Your task to perform on an android device: clear history in the chrome app Image 0: 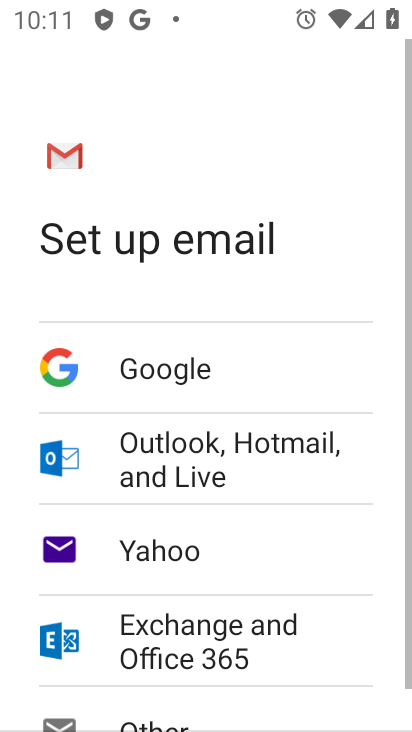
Step 0: press home button
Your task to perform on an android device: clear history in the chrome app Image 1: 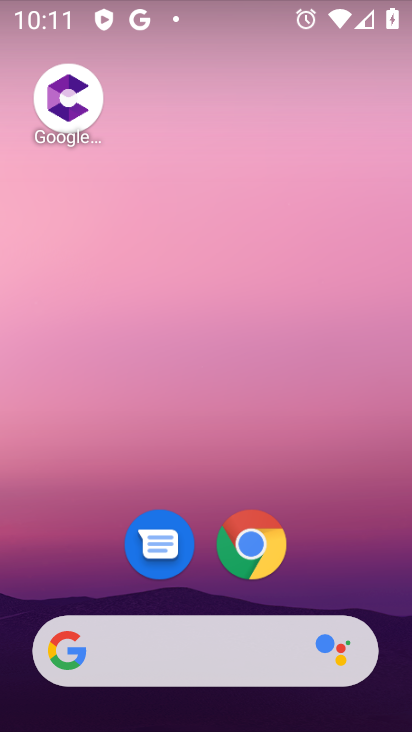
Step 1: click (247, 561)
Your task to perform on an android device: clear history in the chrome app Image 2: 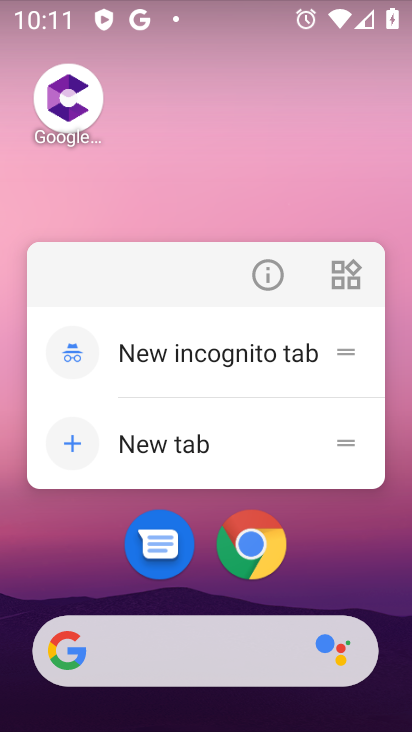
Step 2: click (245, 560)
Your task to perform on an android device: clear history in the chrome app Image 3: 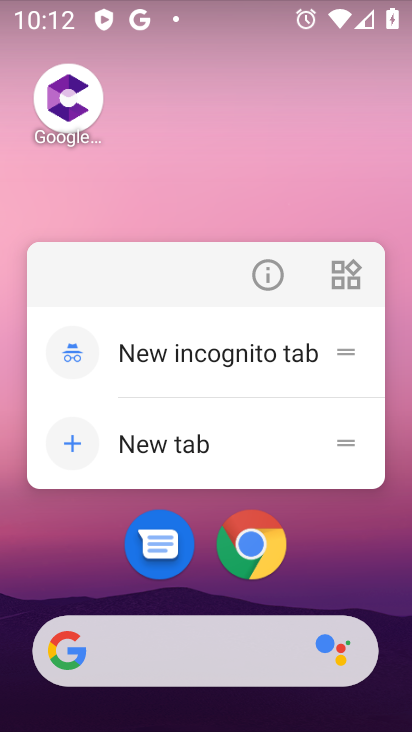
Step 3: click (242, 560)
Your task to perform on an android device: clear history in the chrome app Image 4: 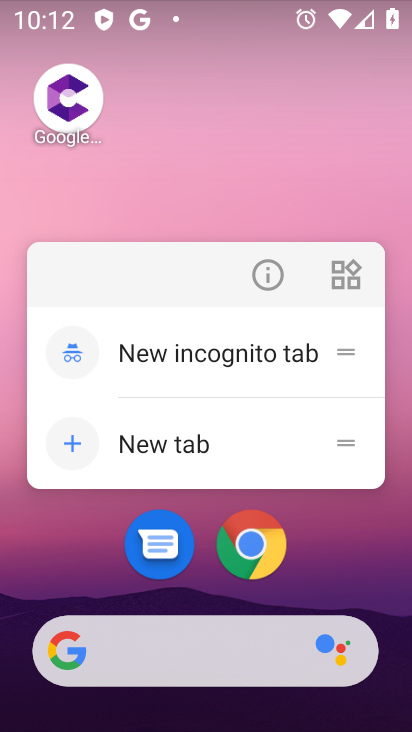
Step 4: click (248, 555)
Your task to perform on an android device: clear history in the chrome app Image 5: 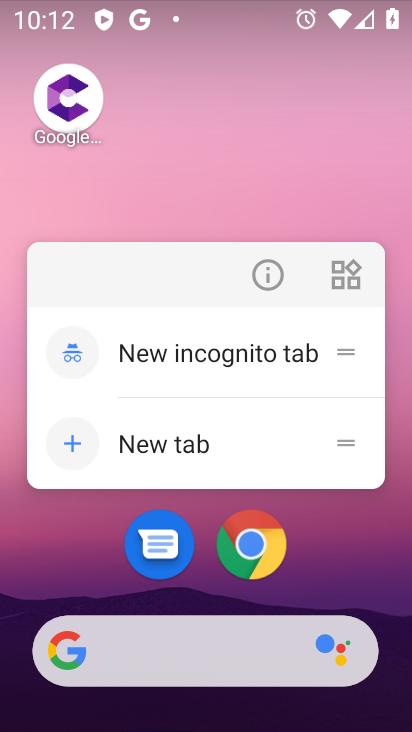
Step 5: click (276, 552)
Your task to perform on an android device: clear history in the chrome app Image 6: 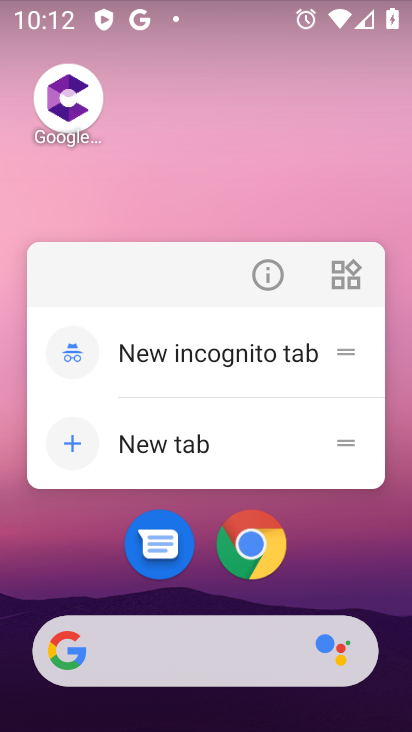
Step 6: click (272, 559)
Your task to perform on an android device: clear history in the chrome app Image 7: 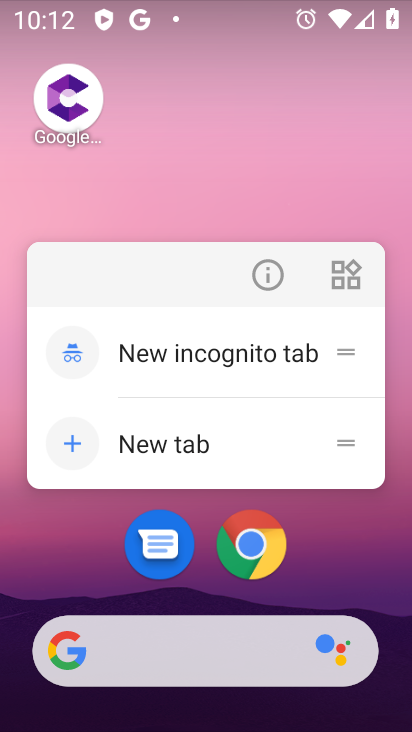
Step 7: click (270, 547)
Your task to perform on an android device: clear history in the chrome app Image 8: 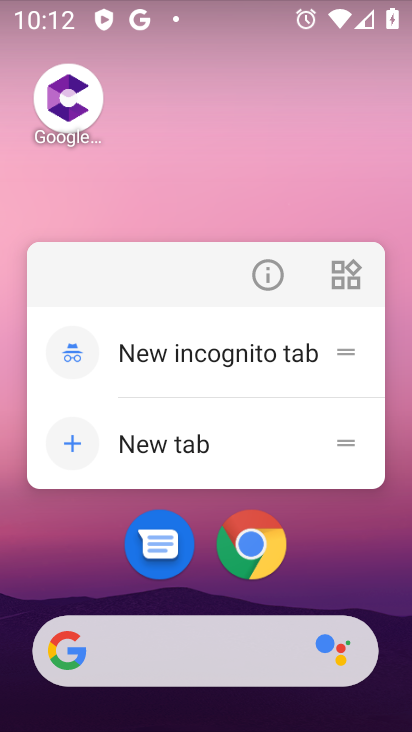
Step 8: click (269, 546)
Your task to perform on an android device: clear history in the chrome app Image 9: 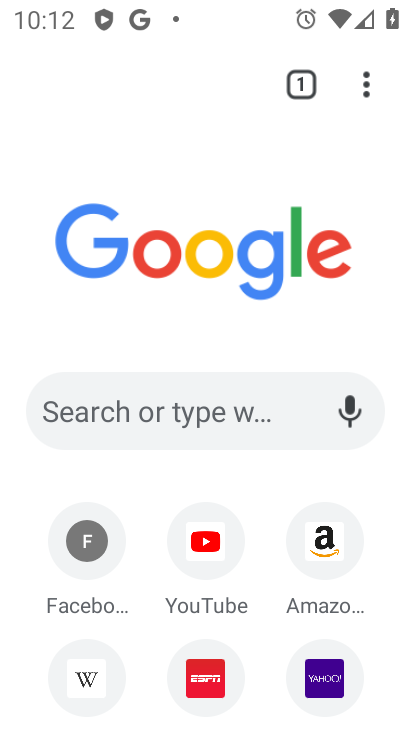
Step 9: drag from (374, 91) to (209, 466)
Your task to perform on an android device: clear history in the chrome app Image 10: 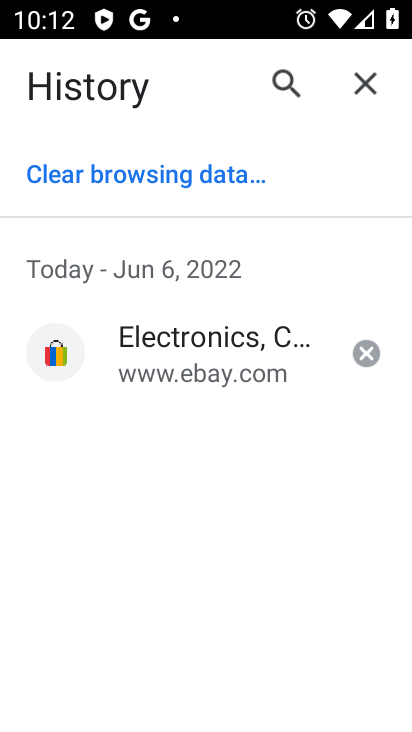
Step 10: click (214, 179)
Your task to perform on an android device: clear history in the chrome app Image 11: 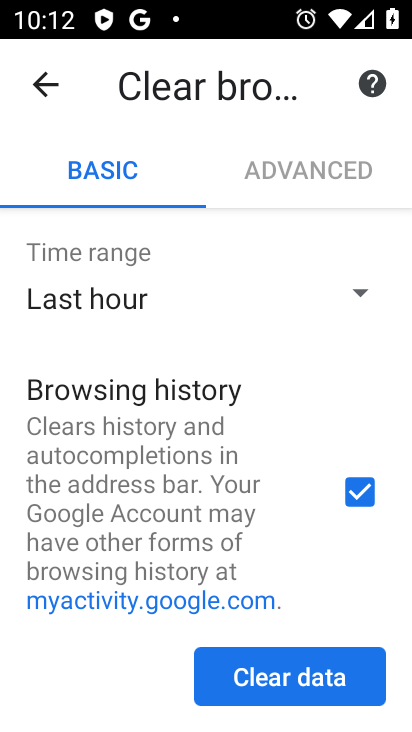
Step 11: drag from (242, 568) to (347, 115)
Your task to perform on an android device: clear history in the chrome app Image 12: 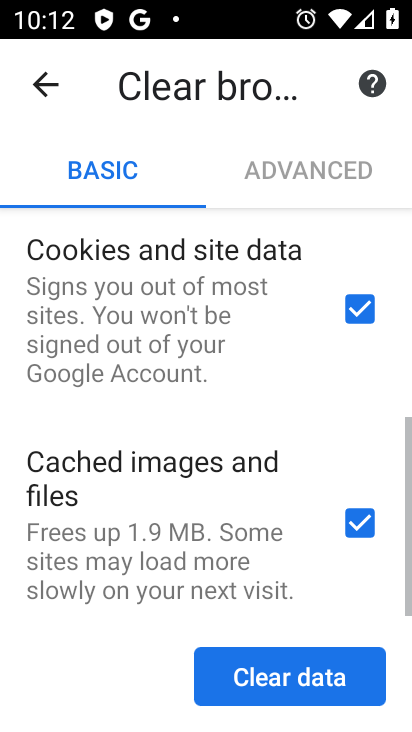
Step 12: drag from (234, 558) to (314, 165)
Your task to perform on an android device: clear history in the chrome app Image 13: 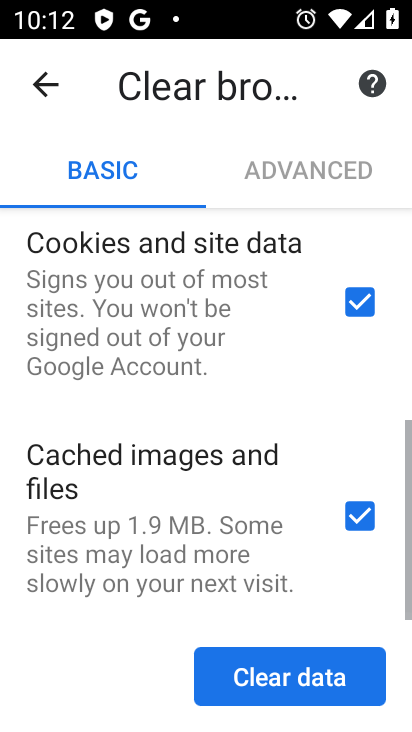
Step 13: click (280, 676)
Your task to perform on an android device: clear history in the chrome app Image 14: 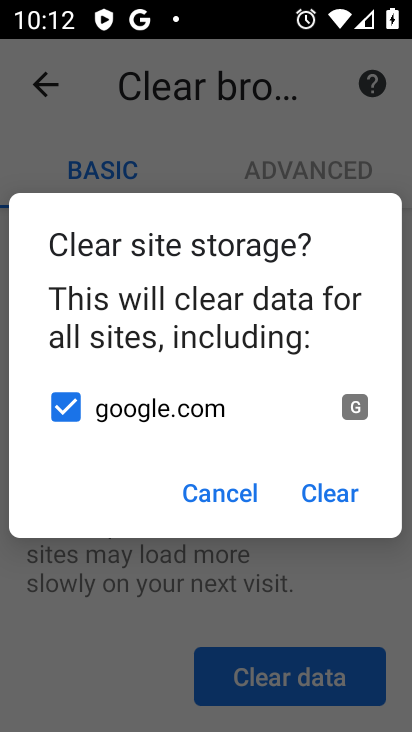
Step 14: click (351, 516)
Your task to perform on an android device: clear history in the chrome app Image 15: 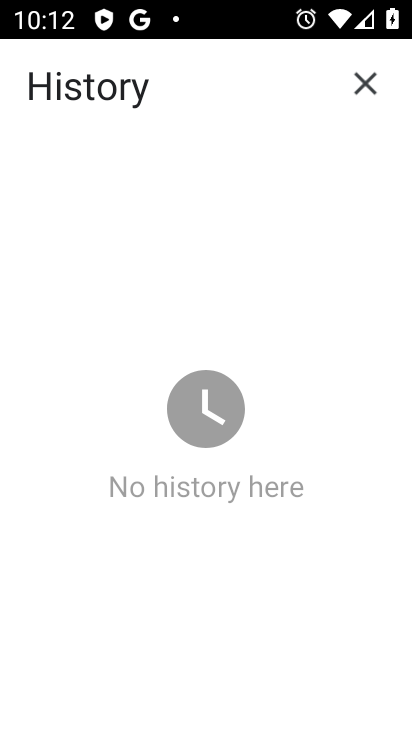
Step 15: task complete